Your task to perform on an android device: turn on improve location accuracy Image 0: 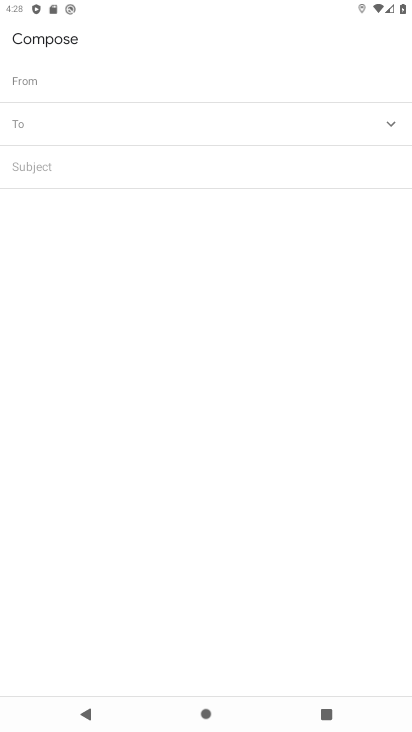
Step 0: drag from (211, 633) to (295, 217)
Your task to perform on an android device: turn on improve location accuracy Image 1: 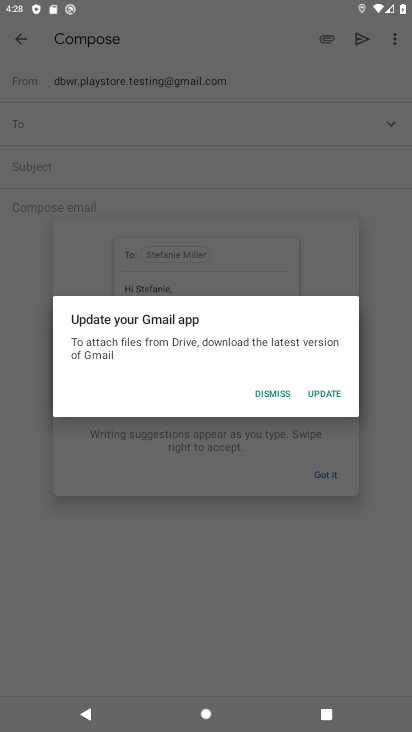
Step 1: press back button
Your task to perform on an android device: turn on improve location accuracy Image 2: 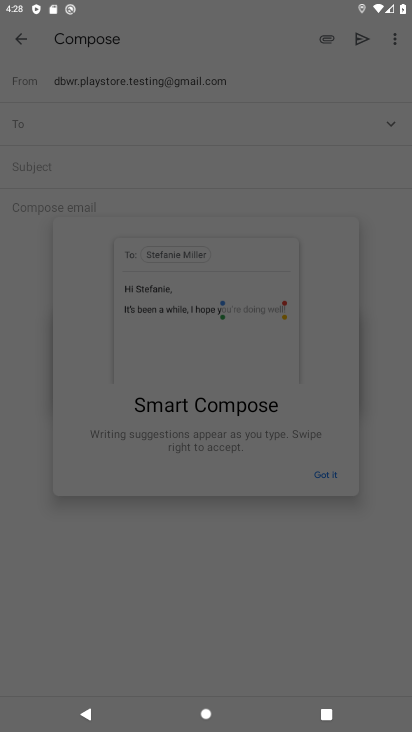
Step 2: press back button
Your task to perform on an android device: turn on improve location accuracy Image 3: 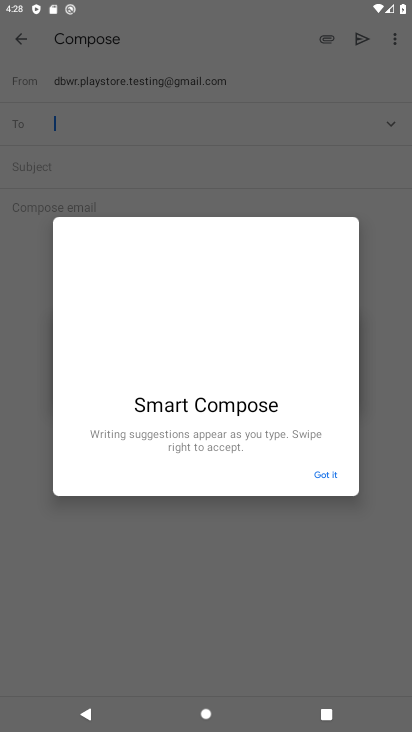
Step 3: press home button
Your task to perform on an android device: turn on improve location accuracy Image 4: 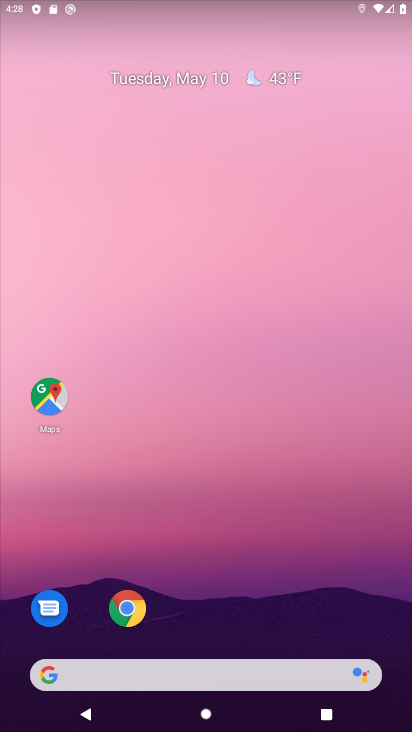
Step 4: drag from (244, 563) to (315, 15)
Your task to perform on an android device: turn on improve location accuracy Image 5: 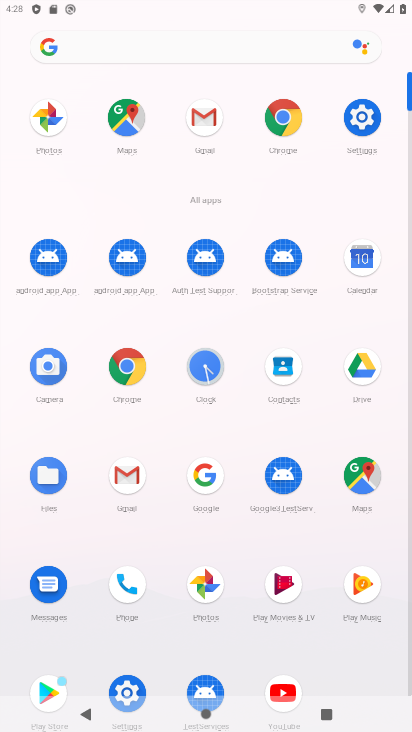
Step 5: click (359, 121)
Your task to perform on an android device: turn on improve location accuracy Image 6: 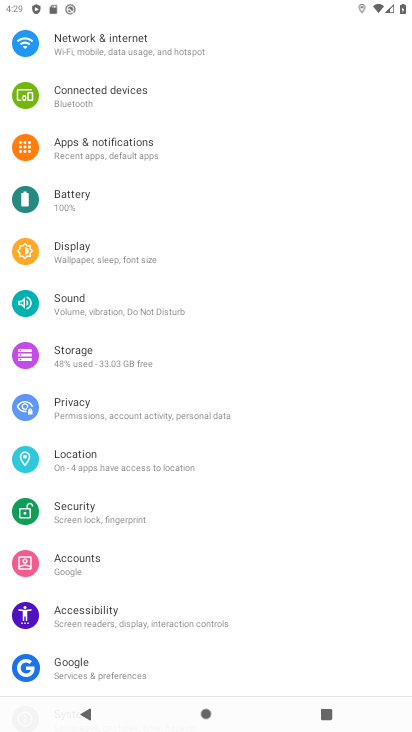
Step 6: click (83, 455)
Your task to perform on an android device: turn on improve location accuracy Image 7: 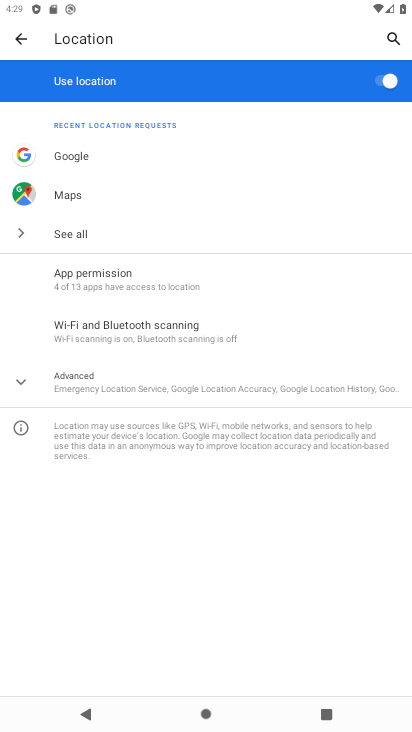
Step 7: click (148, 383)
Your task to perform on an android device: turn on improve location accuracy Image 8: 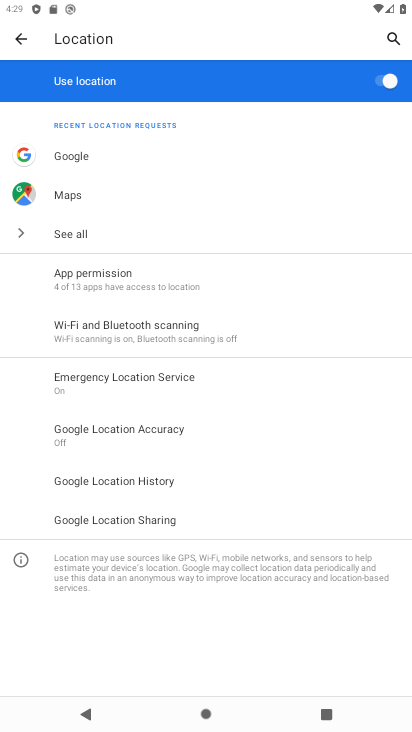
Step 8: click (151, 443)
Your task to perform on an android device: turn on improve location accuracy Image 9: 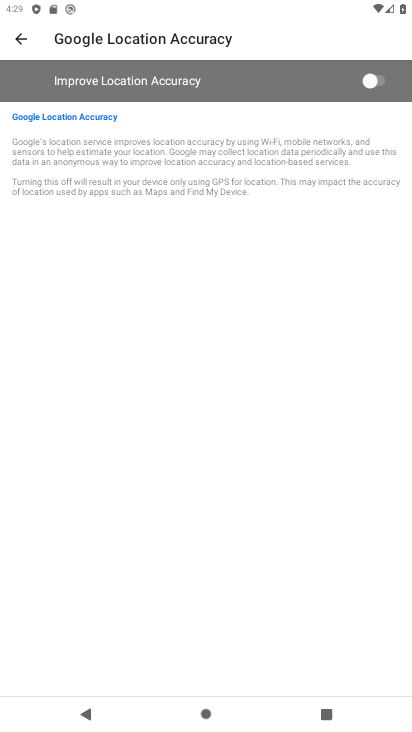
Step 9: click (370, 75)
Your task to perform on an android device: turn on improve location accuracy Image 10: 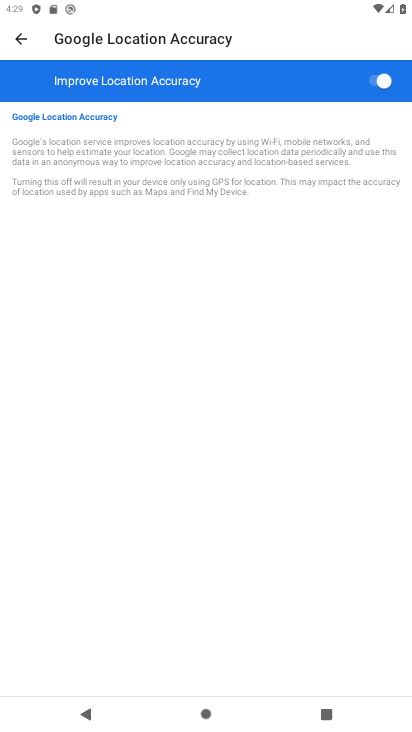
Step 10: task complete